Your task to perform on an android device: turn on the 24-hour format for clock Image 0: 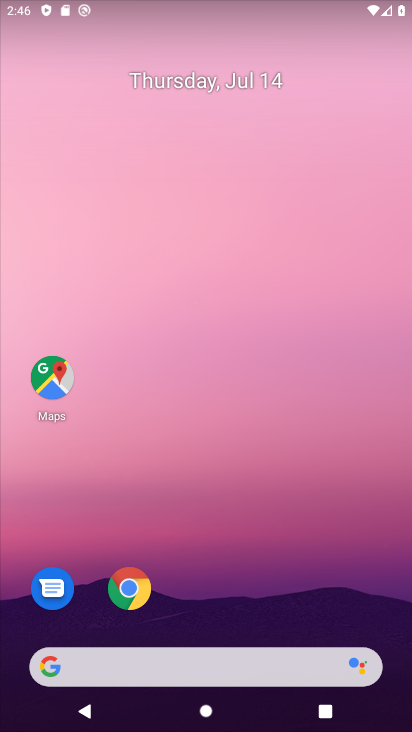
Step 0: drag from (255, 613) to (211, 81)
Your task to perform on an android device: turn on the 24-hour format for clock Image 1: 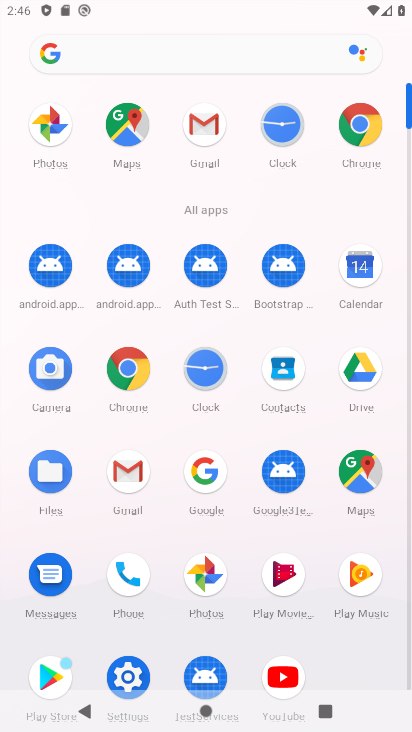
Step 1: click (201, 364)
Your task to perform on an android device: turn on the 24-hour format for clock Image 2: 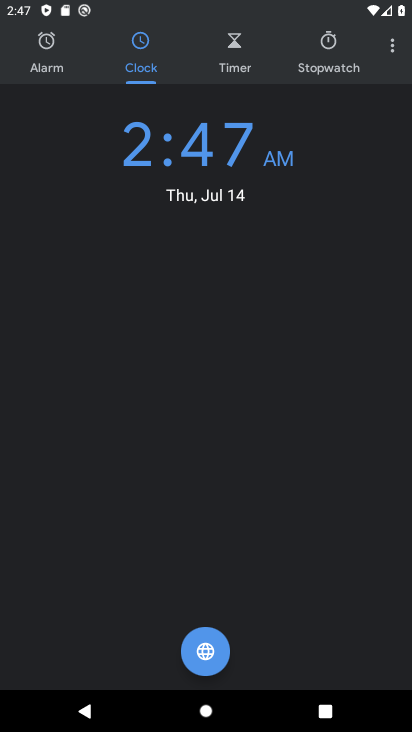
Step 2: click (398, 53)
Your task to perform on an android device: turn on the 24-hour format for clock Image 3: 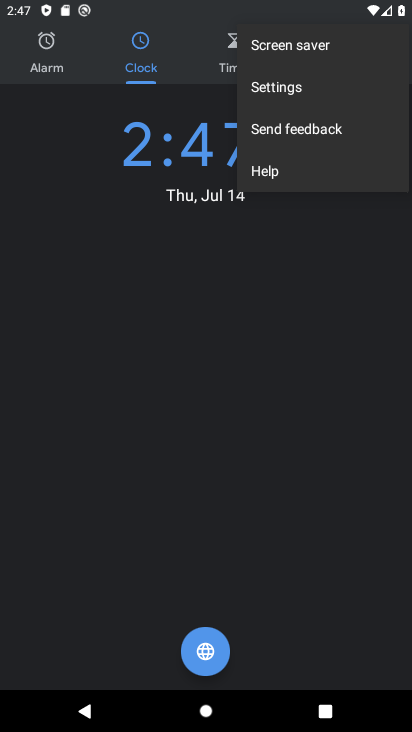
Step 3: click (316, 86)
Your task to perform on an android device: turn on the 24-hour format for clock Image 4: 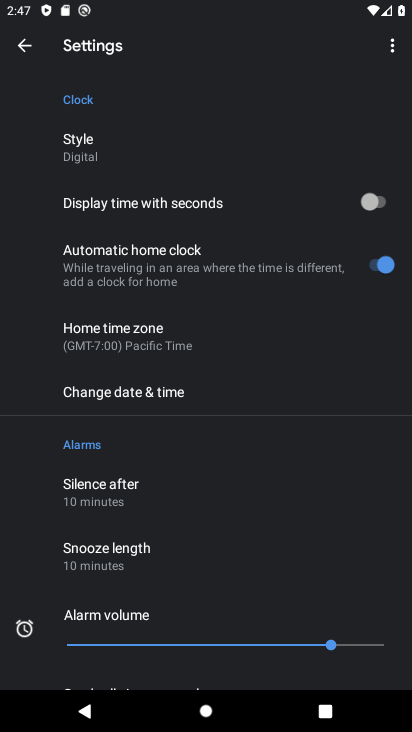
Step 4: click (299, 399)
Your task to perform on an android device: turn on the 24-hour format for clock Image 5: 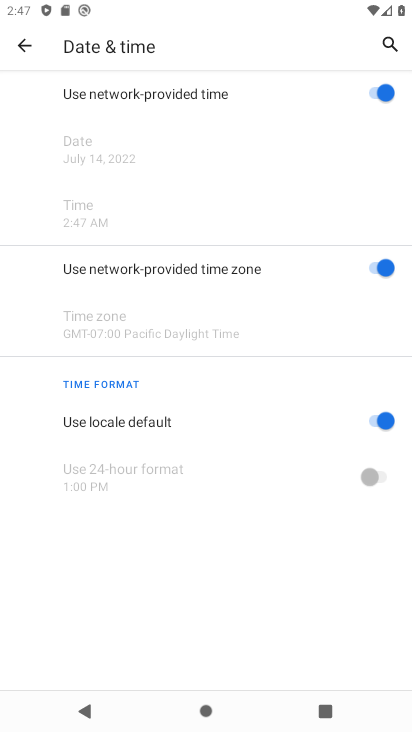
Step 5: click (381, 414)
Your task to perform on an android device: turn on the 24-hour format for clock Image 6: 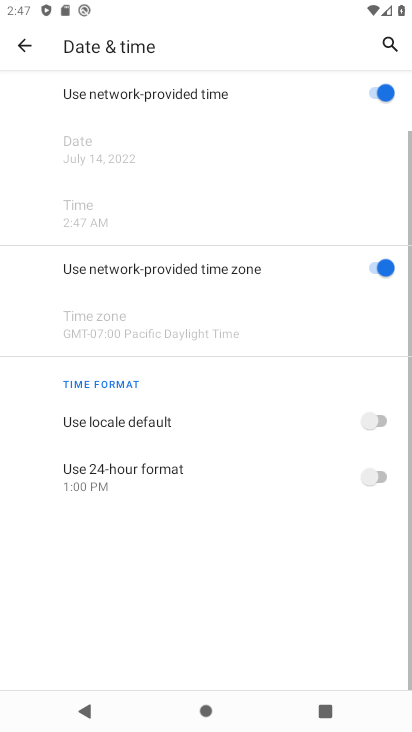
Step 6: click (382, 477)
Your task to perform on an android device: turn on the 24-hour format for clock Image 7: 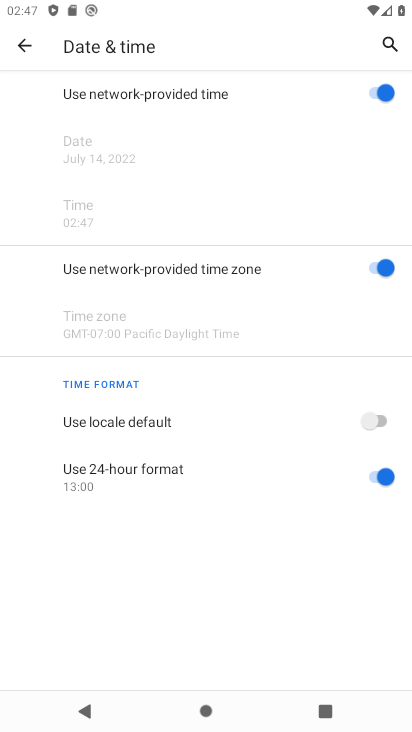
Step 7: task complete